Your task to perform on an android device: see tabs open on other devices in the chrome app Image 0: 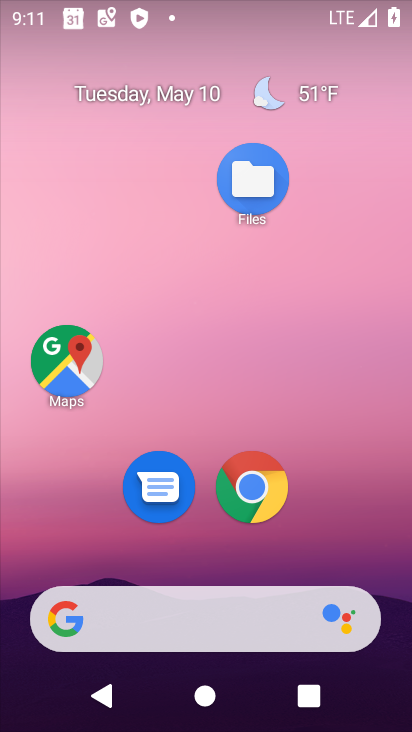
Step 0: click (250, 483)
Your task to perform on an android device: see tabs open on other devices in the chrome app Image 1: 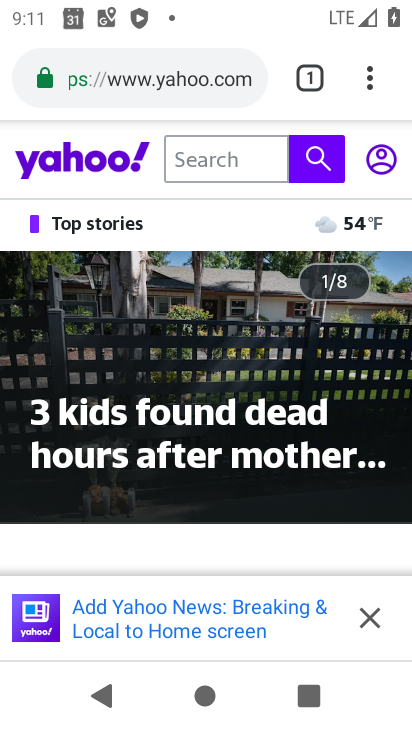
Step 1: task complete